Your task to perform on an android device: Open Amazon Image 0: 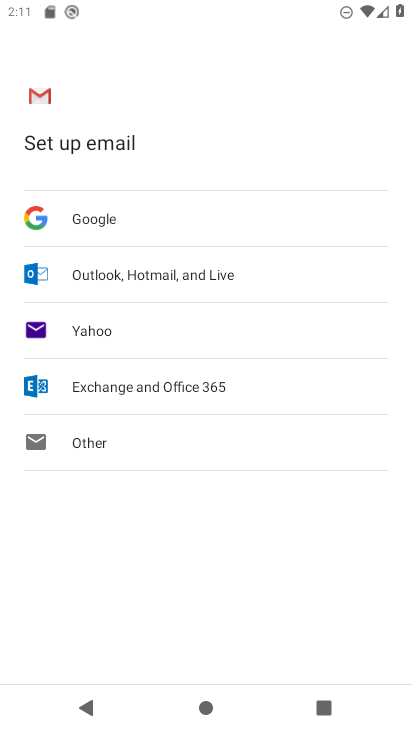
Step 0: press home button
Your task to perform on an android device: Open Amazon Image 1: 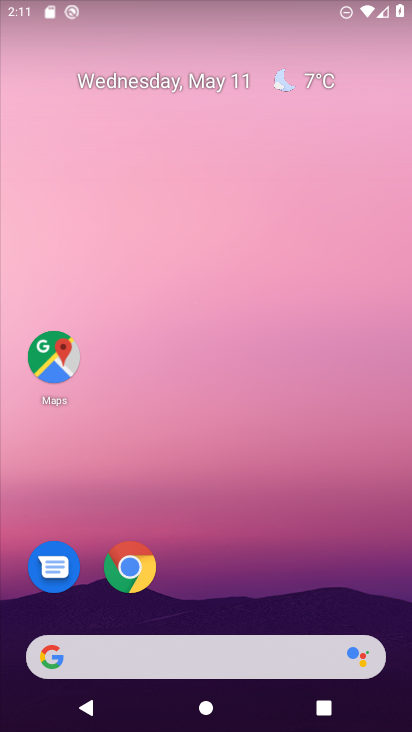
Step 1: click (140, 570)
Your task to perform on an android device: Open Amazon Image 2: 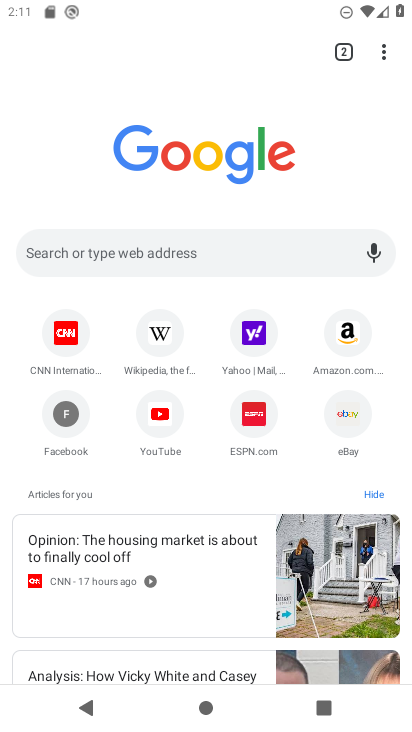
Step 2: click (343, 326)
Your task to perform on an android device: Open Amazon Image 3: 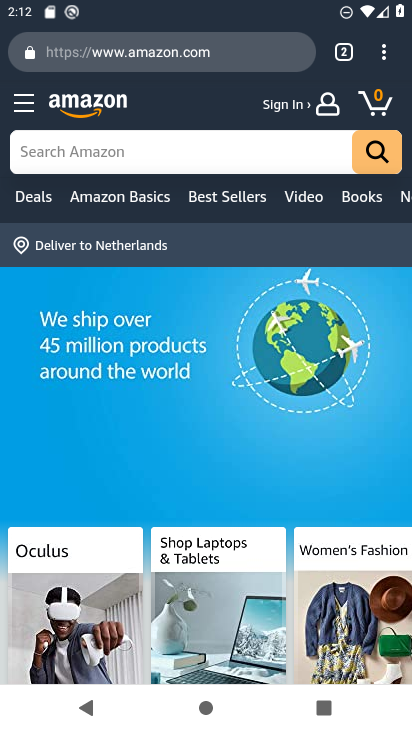
Step 3: task complete